Your task to perform on an android device: Go to battery settings Image 0: 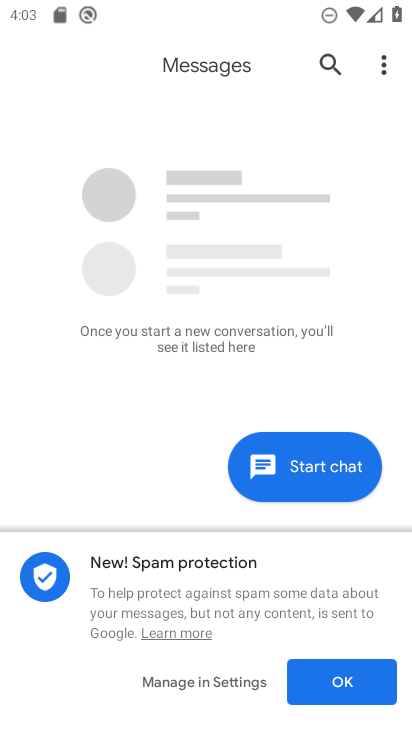
Step 0: press home button
Your task to perform on an android device: Go to battery settings Image 1: 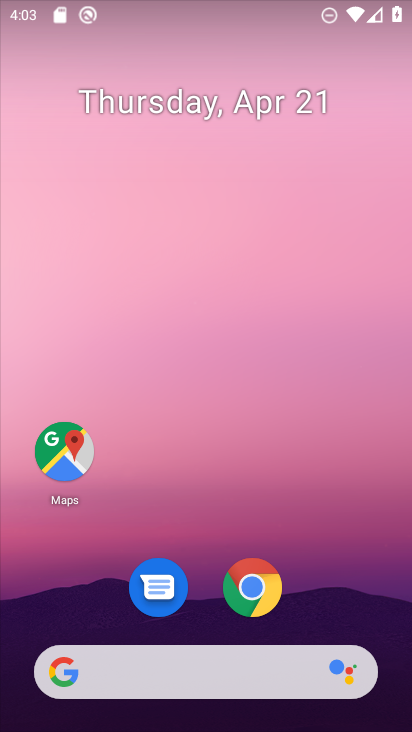
Step 1: drag from (362, 592) to (377, 0)
Your task to perform on an android device: Go to battery settings Image 2: 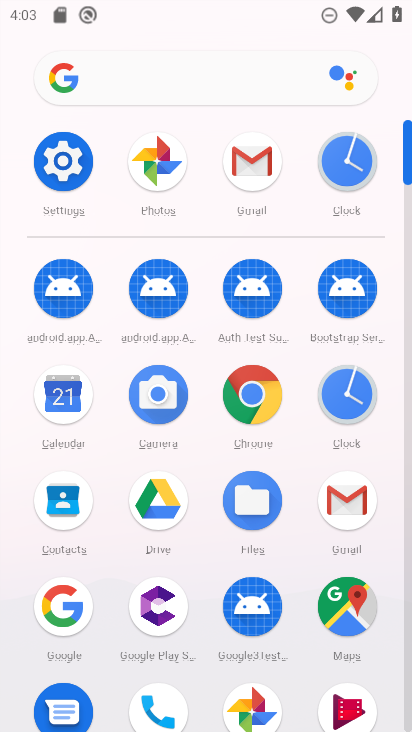
Step 2: click (60, 161)
Your task to perform on an android device: Go to battery settings Image 3: 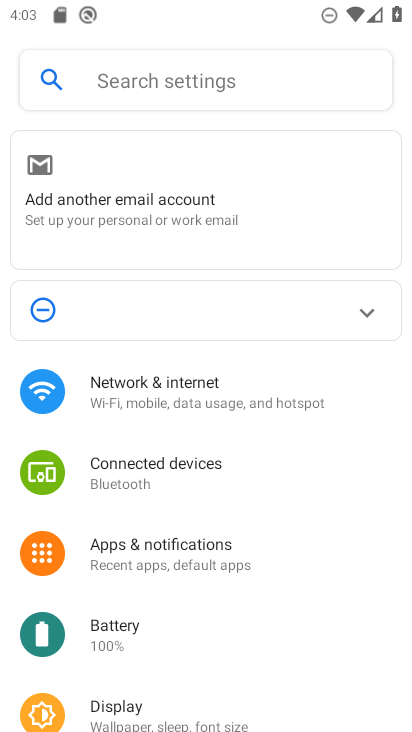
Step 3: click (113, 627)
Your task to perform on an android device: Go to battery settings Image 4: 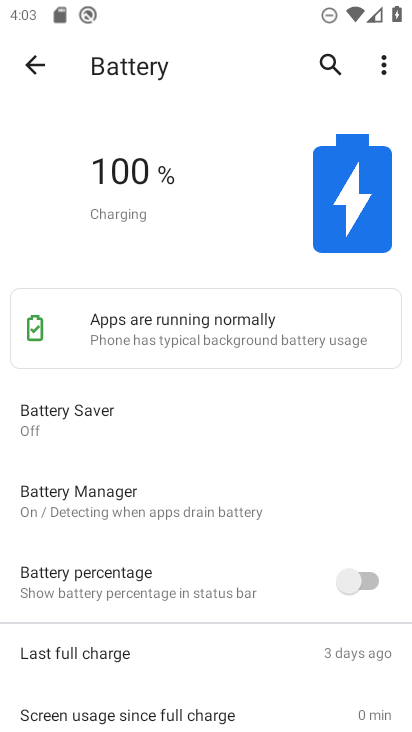
Step 4: task complete